Your task to perform on an android device: check battery use Image 0: 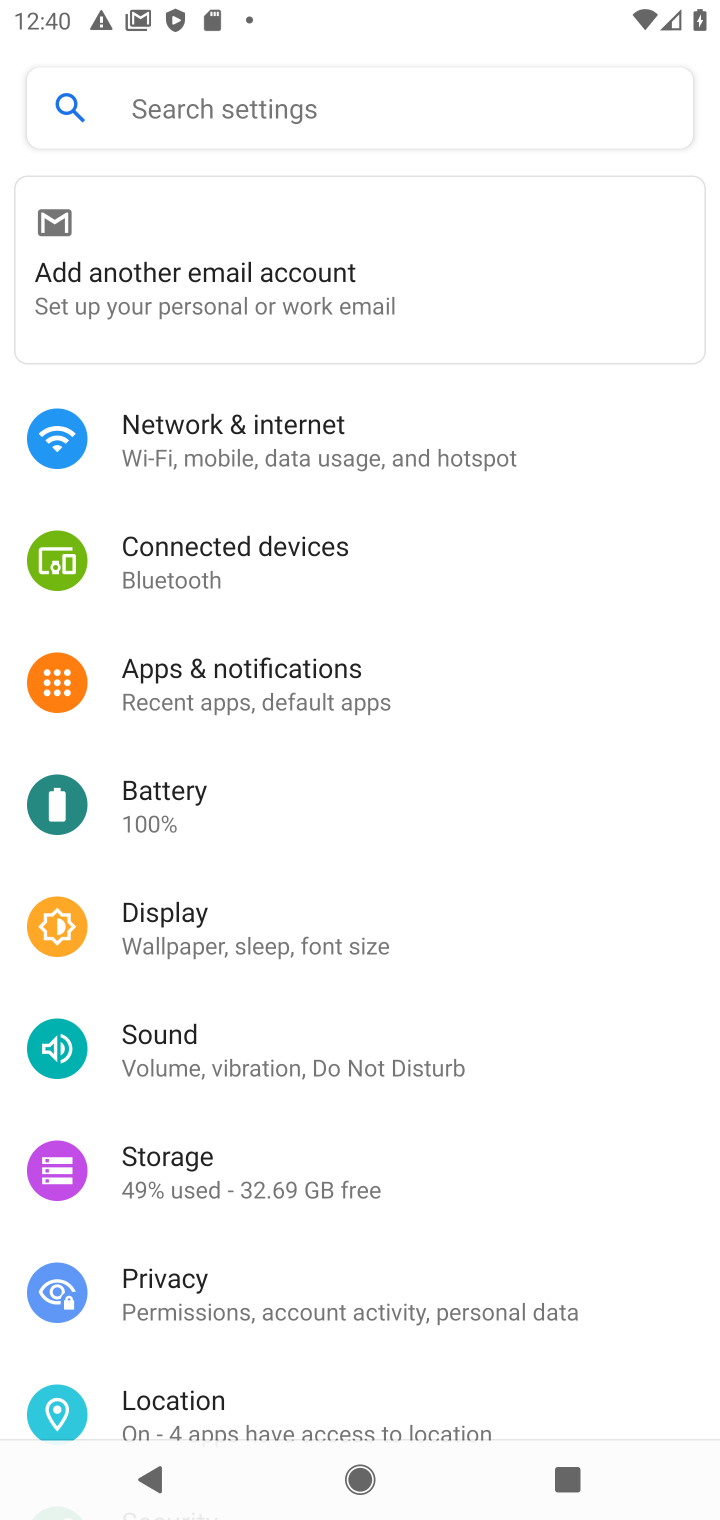
Step 0: click (181, 807)
Your task to perform on an android device: check battery use Image 1: 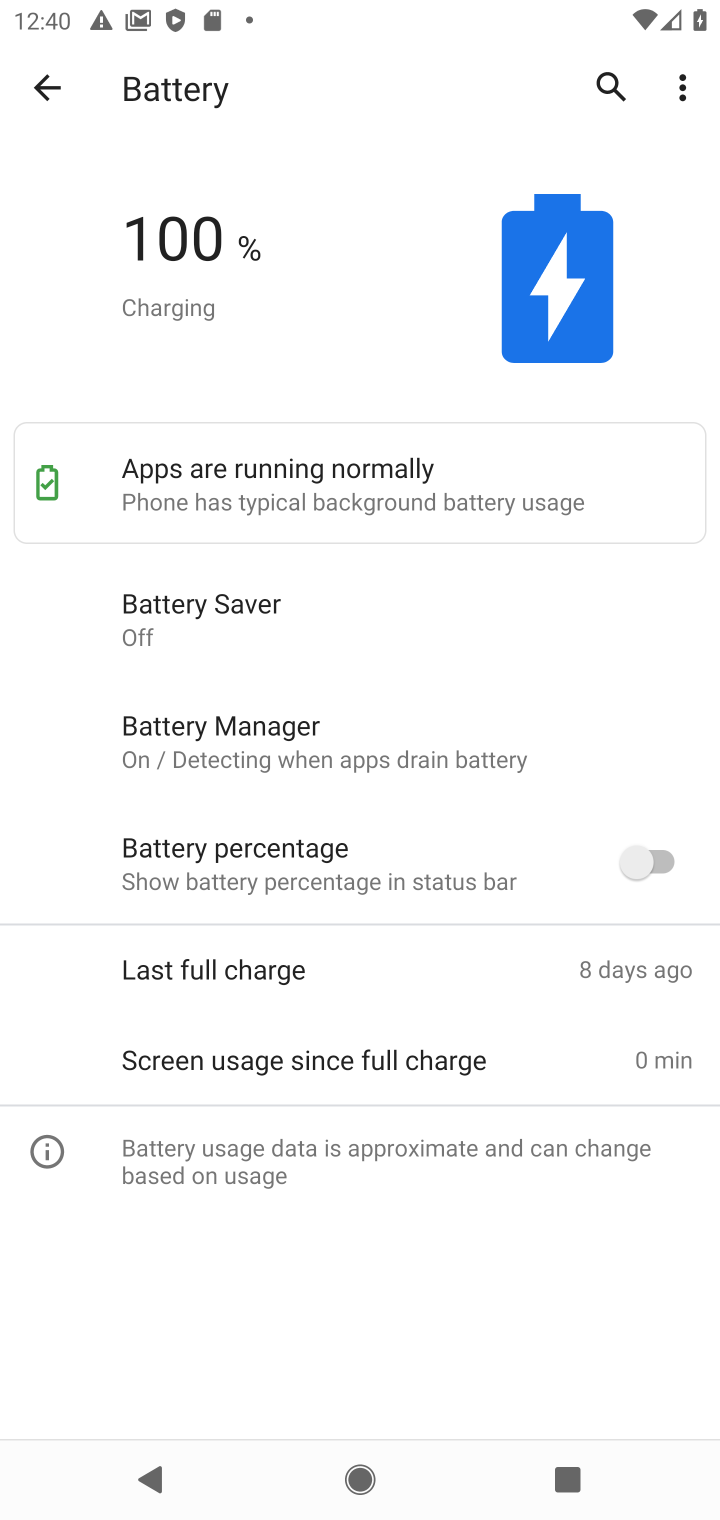
Step 1: click (681, 83)
Your task to perform on an android device: check battery use Image 2: 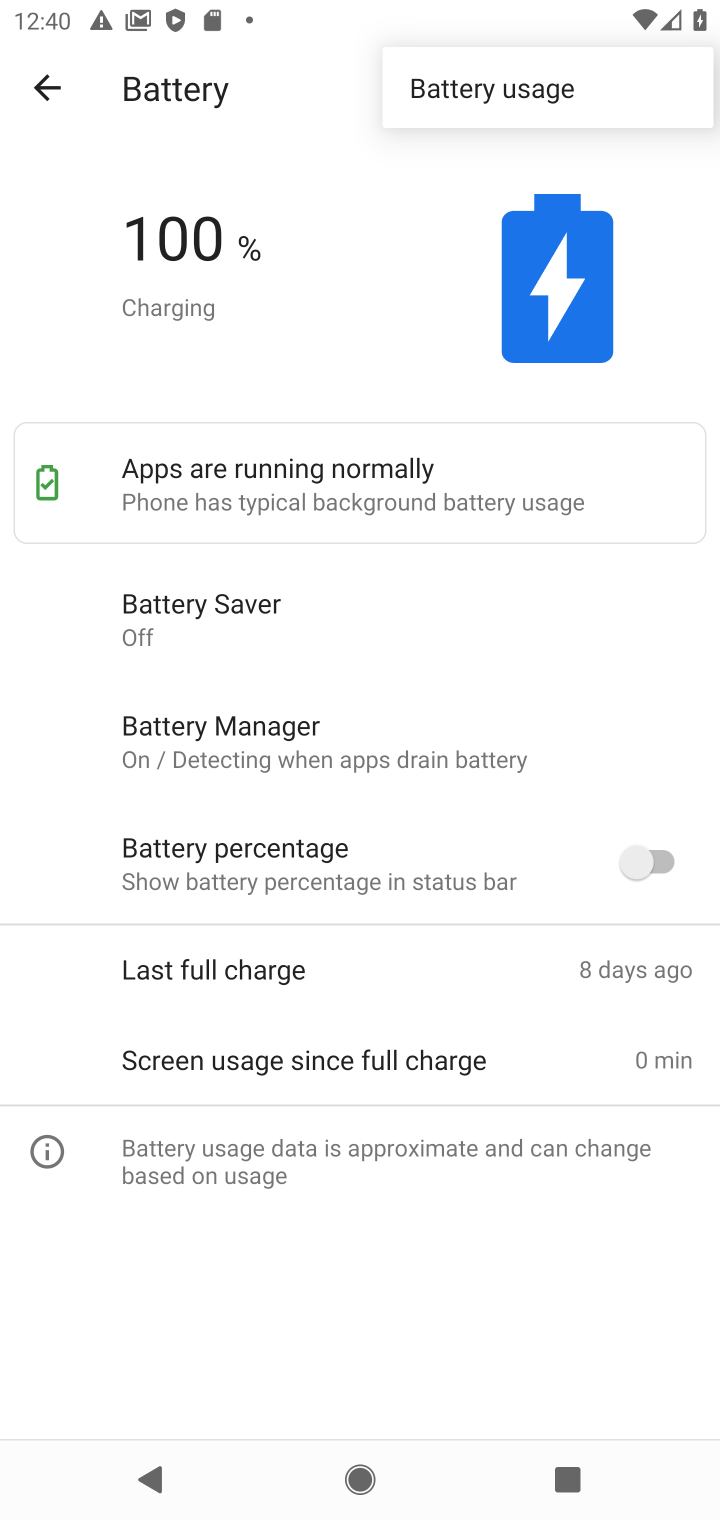
Step 2: click (612, 114)
Your task to perform on an android device: check battery use Image 3: 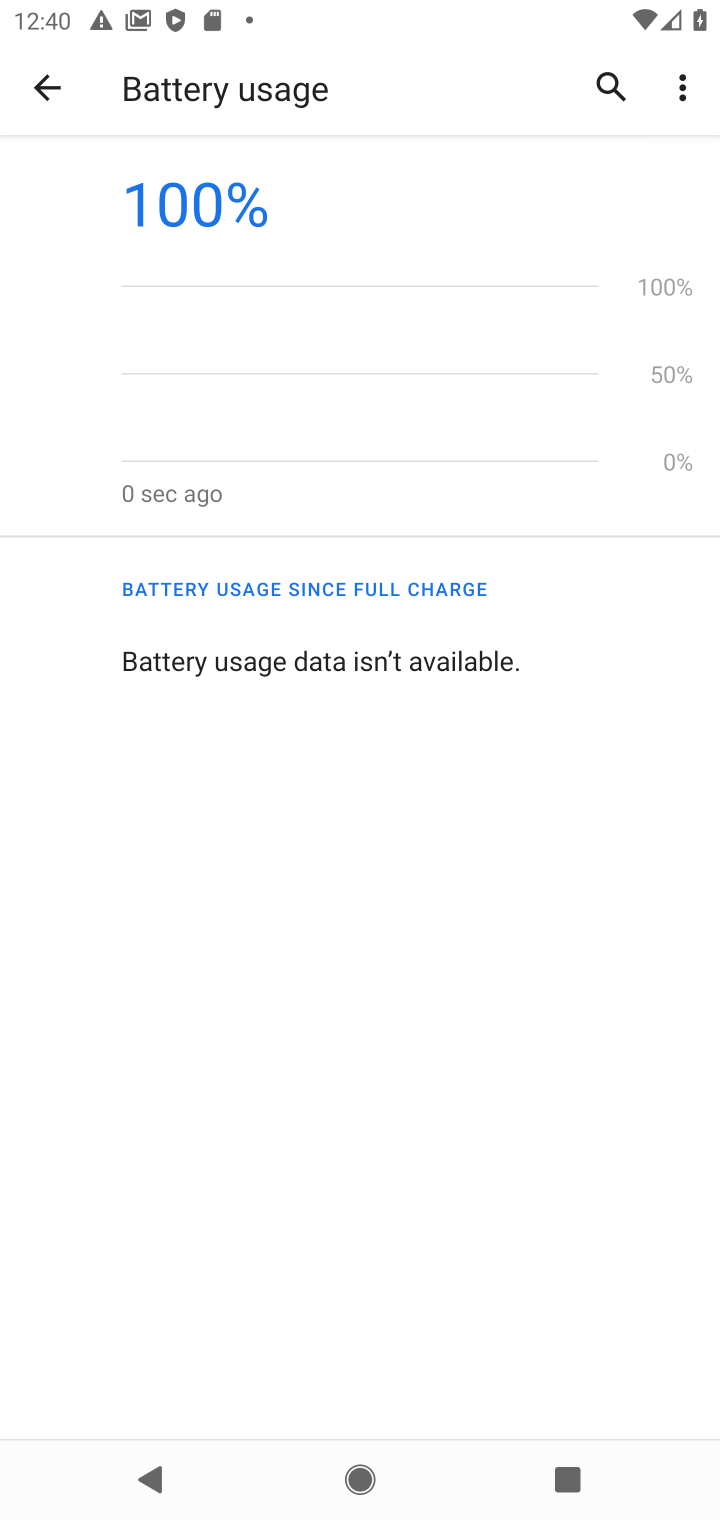
Step 3: task complete